Your task to perform on an android device: Search for sushi restaurants on Maps Image 0: 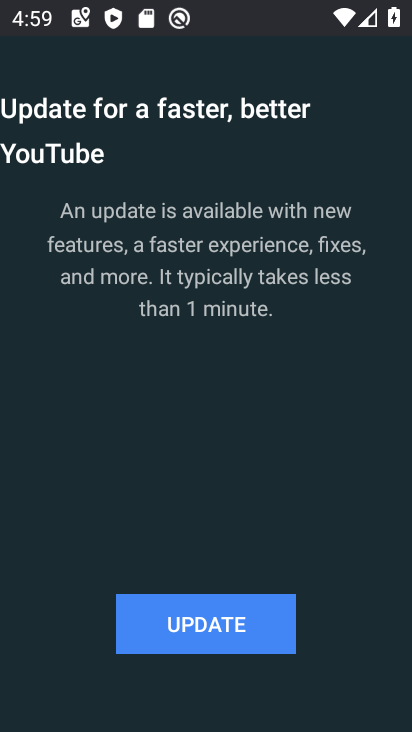
Step 0: click (229, 618)
Your task to perform on an android device: Search for sushi restaurants on Maps Image 1: 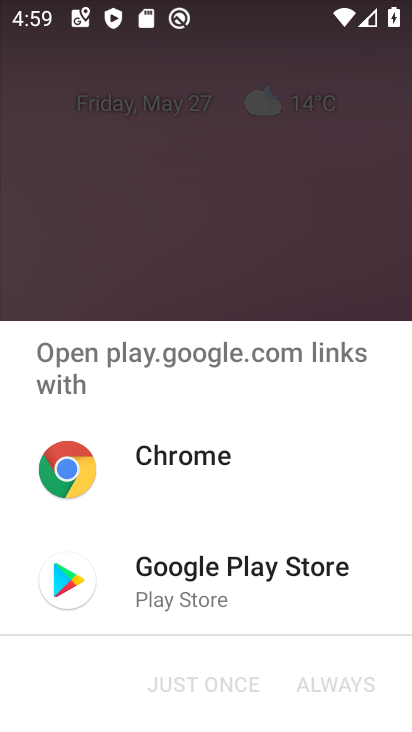
Step 1: press home button
Your task to perform on an android device: Search for sushi restaurants on Maps Image 2: 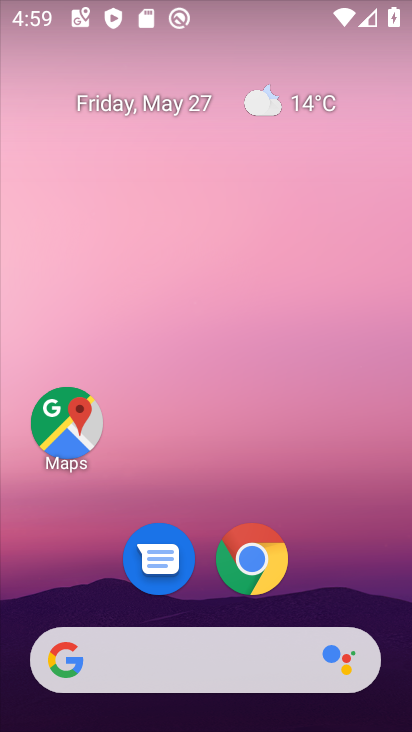
Step 2: click (65, 407)
Your task to perform on an android device: Search for sushi restaurants on Maps Image 3: 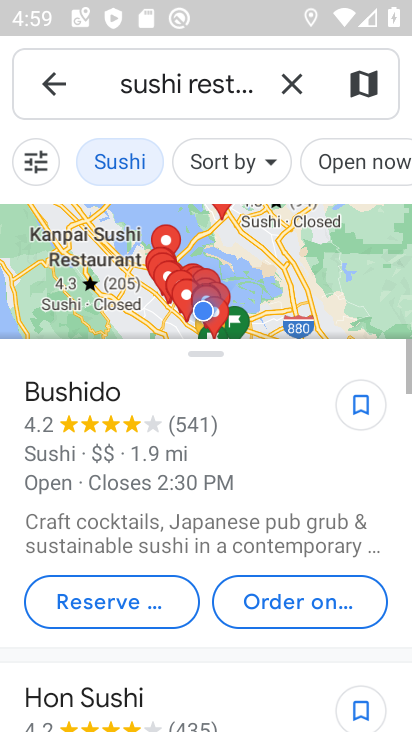
Step 3: click (287, 92)
Your task to perform on an android device: Search for sushi restaurants on Maps Image 4: 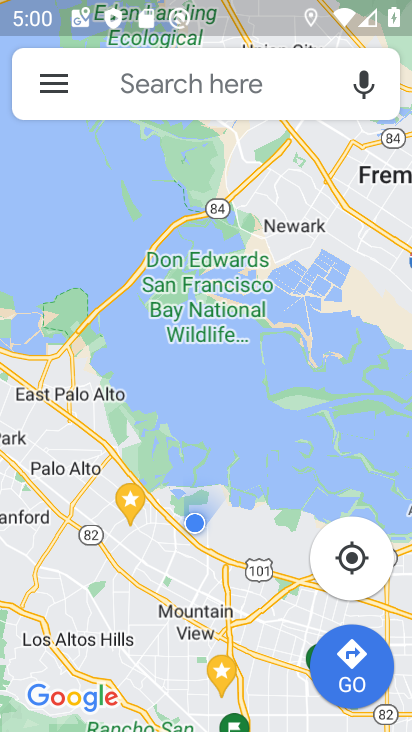
Step 4: click (187, 75)
Your task to perform on an android device: Search for sushi restaurants on Maps Image 5: 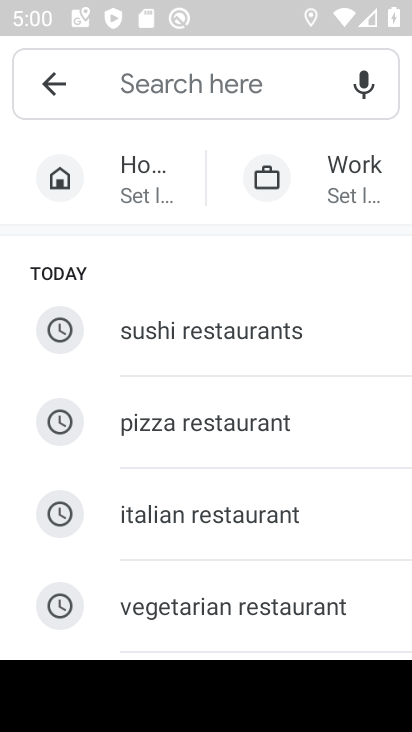
Step 5: type "sushi restaurants"
Your task to perform on an android device: Search for sushi restaurants on Maps Image 6: 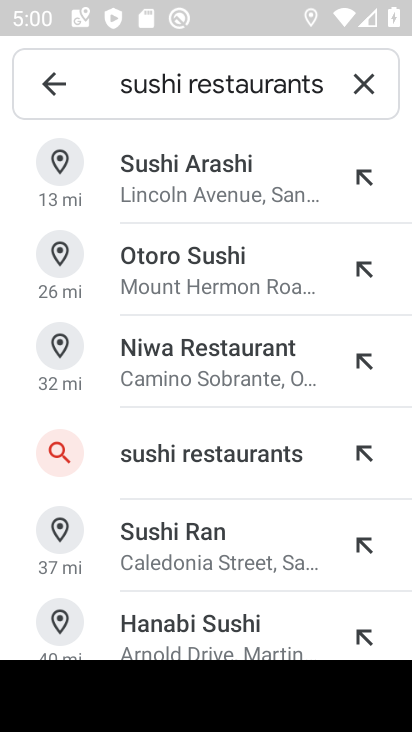
Step 6: click (197, 163)
Your task to perform on an android device: Search for sushi restaurants on Maps Image 7: 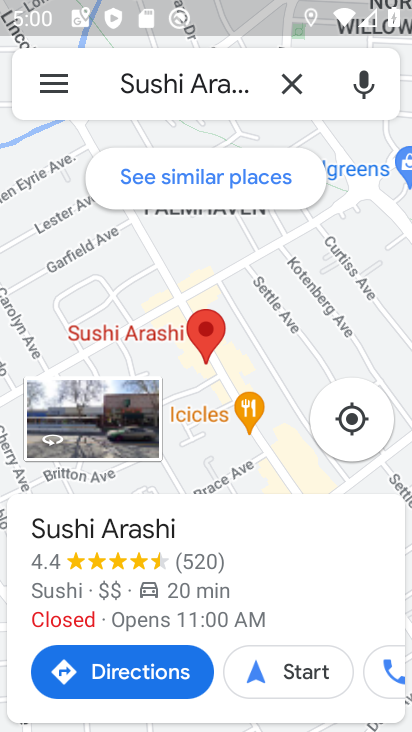
Step 7: task complete